Your task to perform on an android device: turn on wifi Image 0: 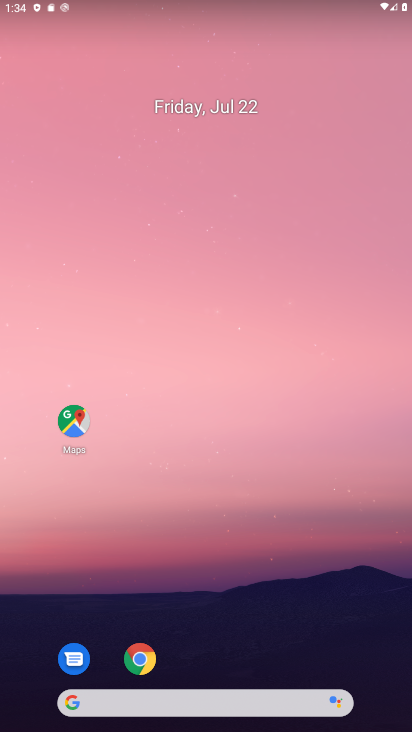
Step 0: drag from (259, 666) to (256, 22)
Your task to perform on an android device: turn on wifi Image 1: 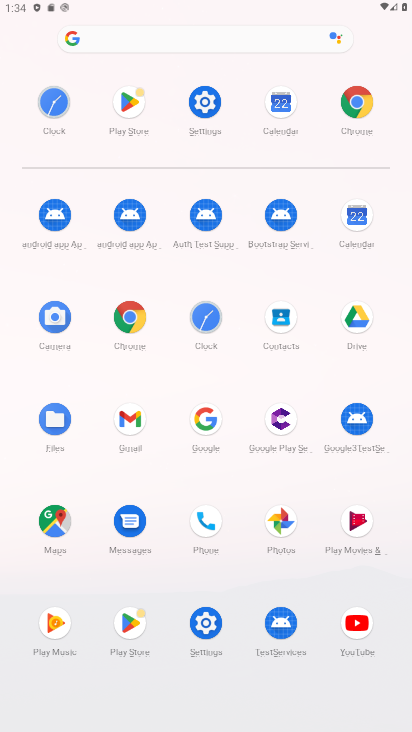
Step 1: click (211, 106)
Your task to perform on an android device: turn on wifi Image 2: 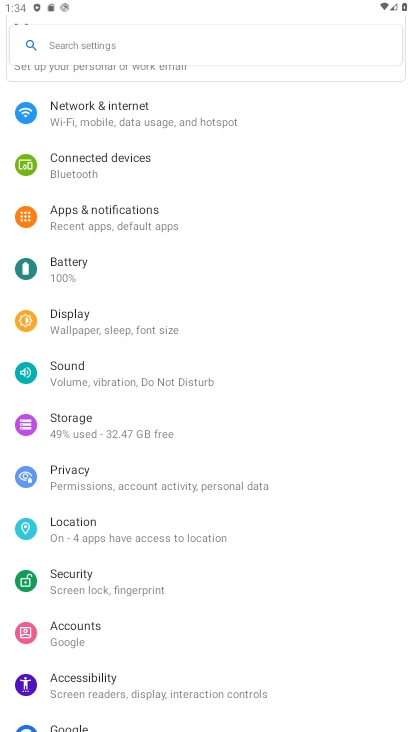
Step 2: click (187, 118)
Your task to perform on an android device: turn on wifi Image 3: 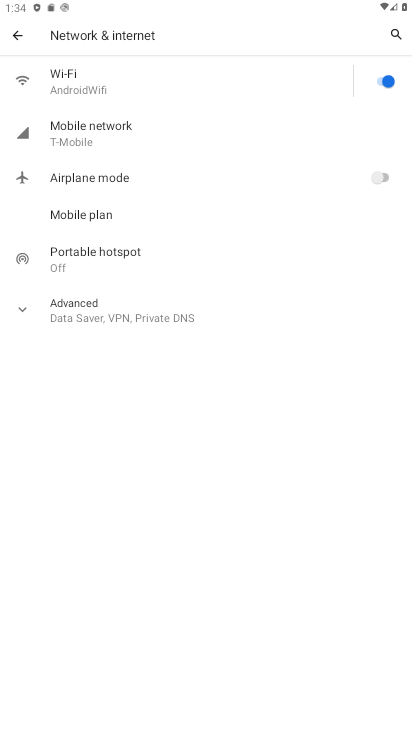
Step 3: click (193, 88)
Your task to perform on an android device: turn on wifi Image 4: 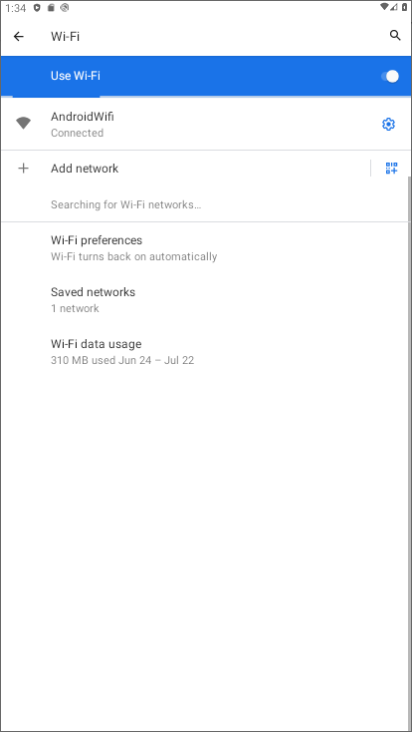
Step 4: task complete